Your task to perform on an android device: delete location history Image 0: 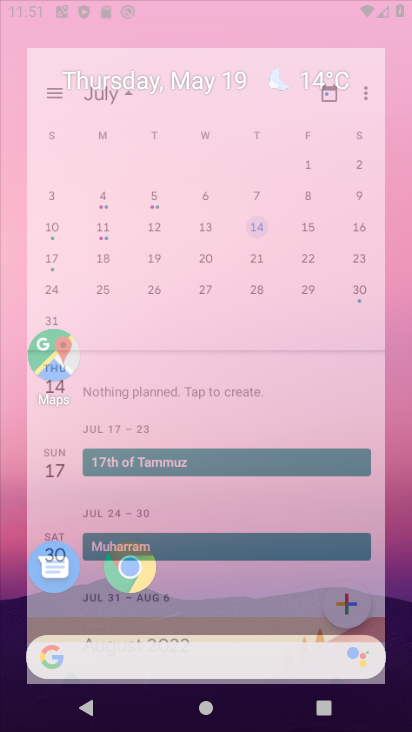
Step 0: drag from (288, 587) to (278, 89)
Your task to perform on an android device: delete location history Image 1: 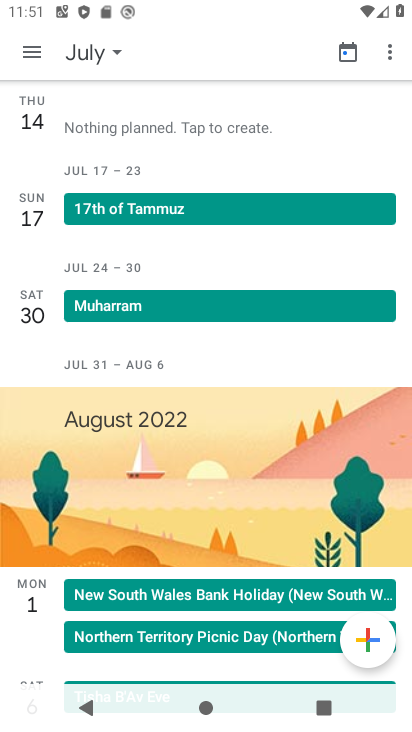
Step 1: press home button
Your task to perform on an android device: delete location history Image 2: 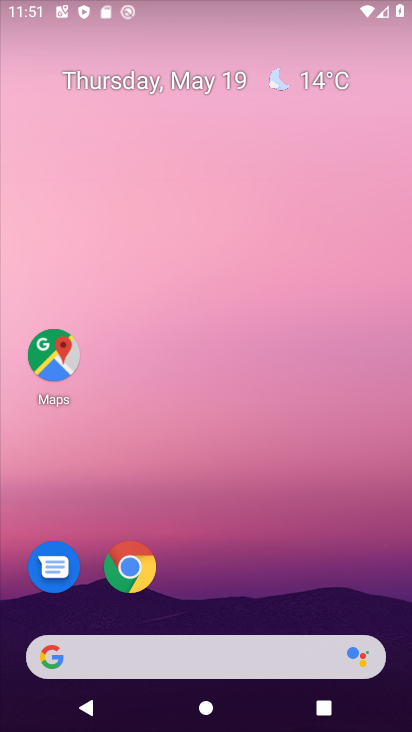
Step 2: drag from (254, 522) to (211, 29)
Your task to perform on an android device: delete location history Image 3: 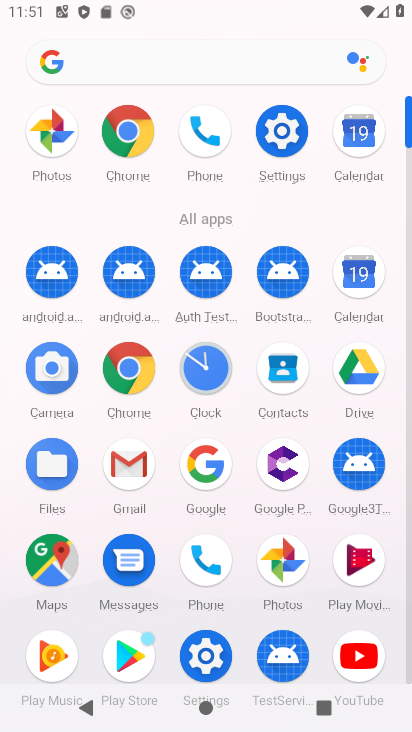
Step 3: click (42, 586)
Your task to perform on an android device: delete location history Image 4: 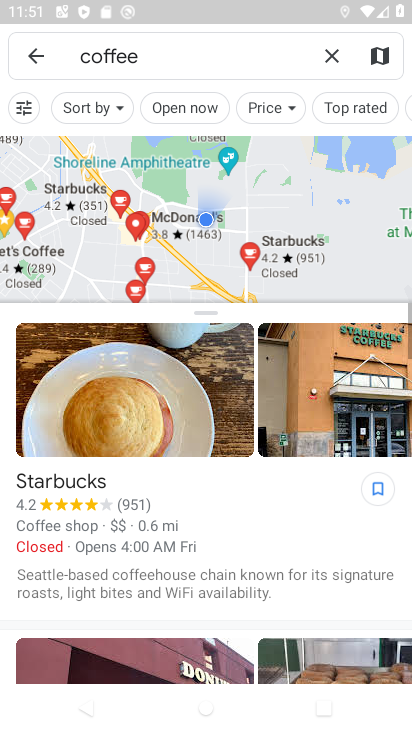
Step 4: click (53, 59)
Your task to perform on an android device: delete location history Image 5: 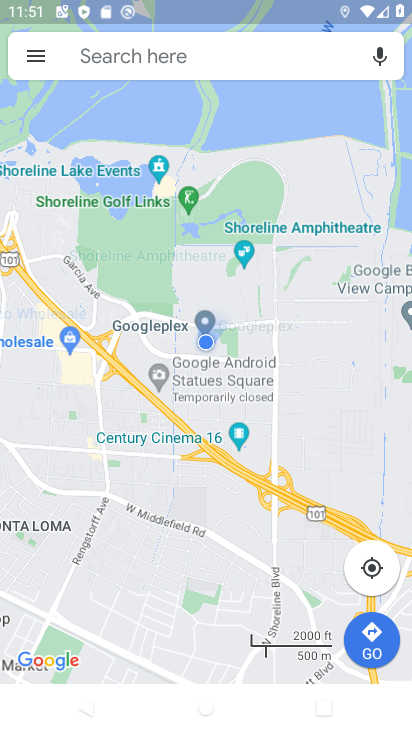
Step 5: click (53, 58)
Your task to perform on an android device: delete location history Image 6: 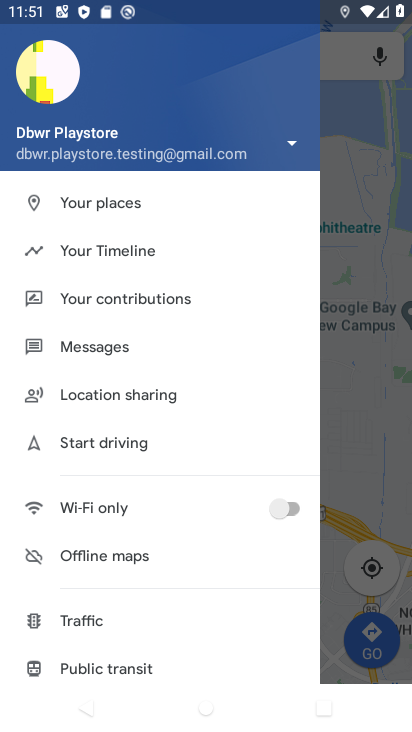
Step 6: click (106, 249)
Your task to perform on an android device: delete location history Image 7: 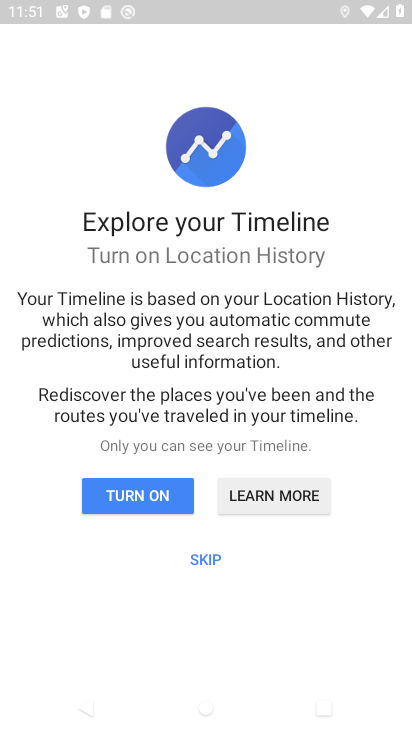
Step 7: click (212, 555)
Your task to perform on an android device: delete location history Image 8: 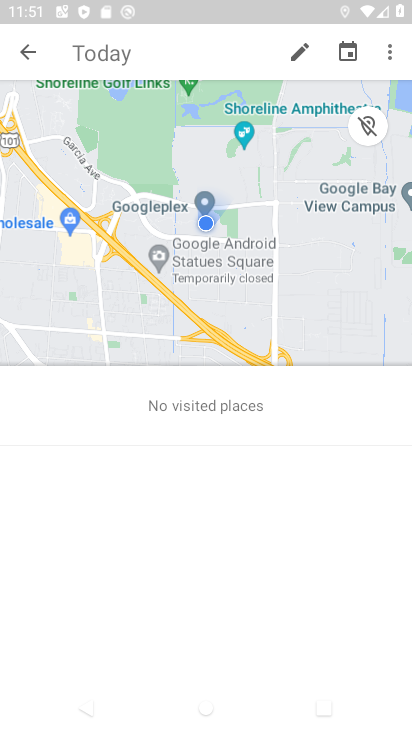
Step 8: click (390, 53)
Your task to perform on an android device: delete location history Image 9: 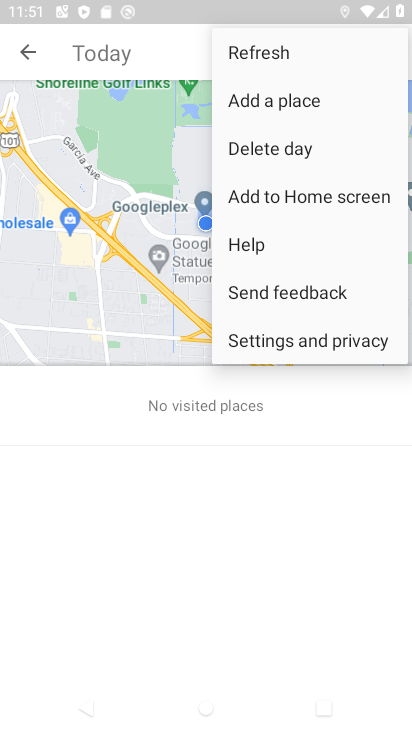
Step 9: click (276, 338)
Your task to perform on an android device: delete location history Image 10: 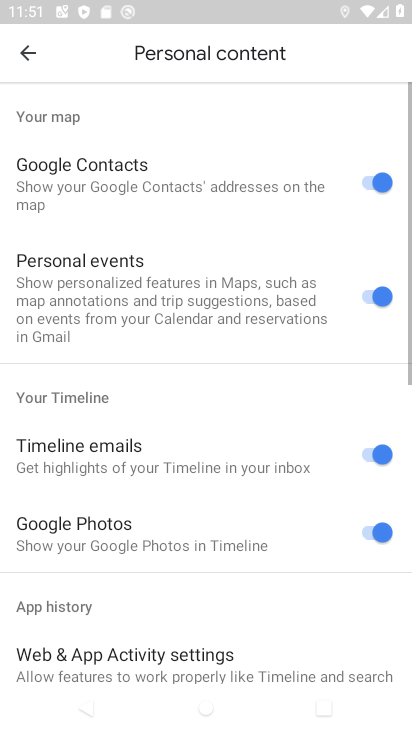
Step 10: drag from (187, 625) to (244, 47)
Your task to perform on an android device: delete location history Image 11: 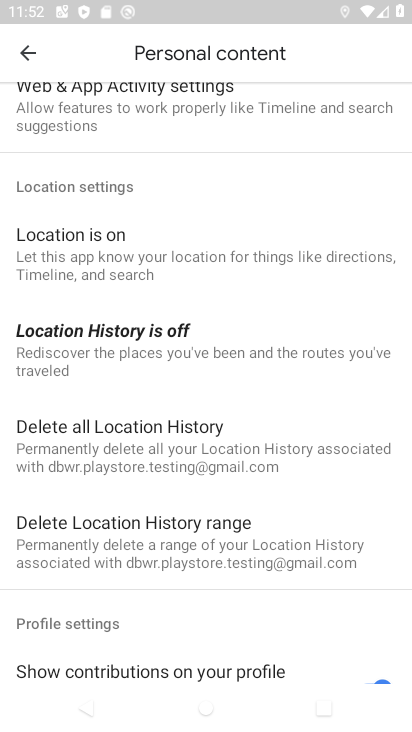
Step 11: click (82, 456)
Your task to perform on an android device: delete location history Image 12: 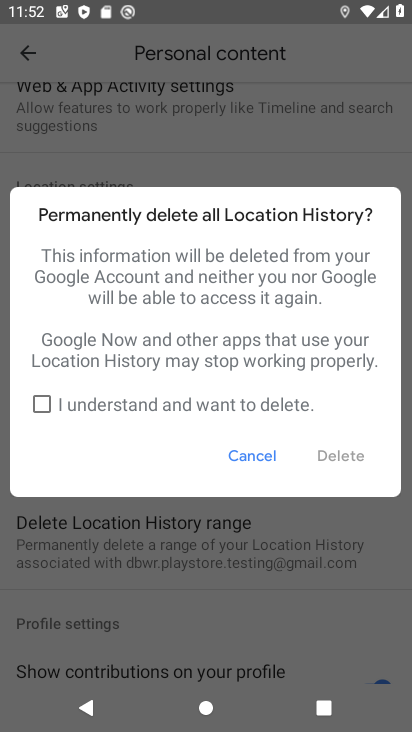
Step 12: click (44, 404)
Your task to perform on an android device: delete location history Image 13: 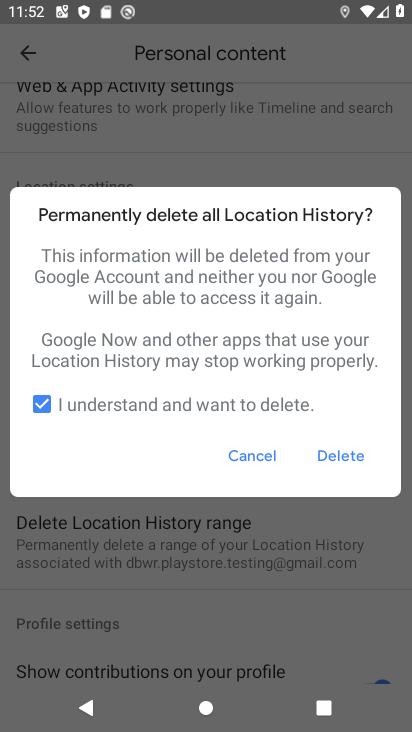
Step 13: click (348, 459)
Your task to perform on an android device: delete location history Image 14: 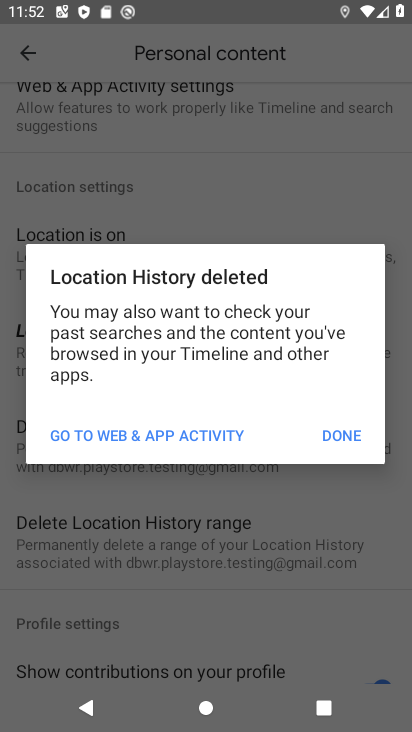
Step 14: click (330, 439)
Your task to perform on an android device: delete location history Image 15: 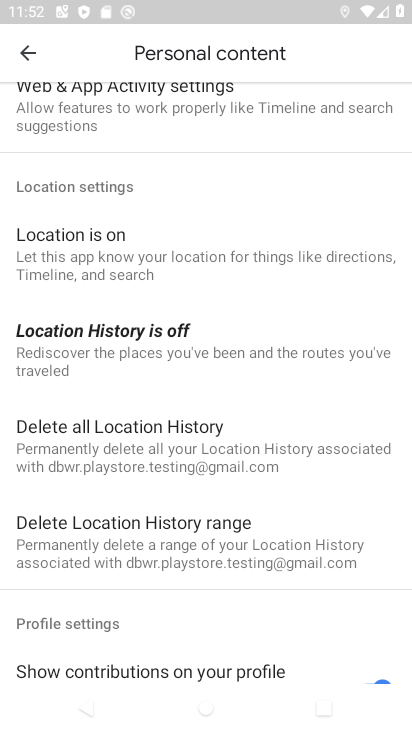
Step 15: task complete